Your task to perform on an android device: open a bookmark in the chrome app Image 0: 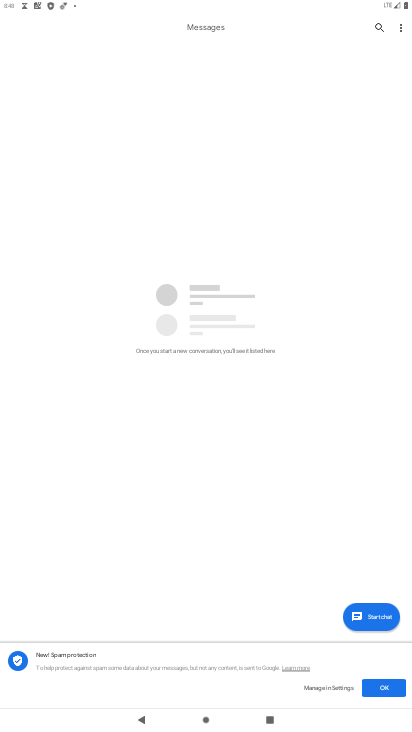
Step 0: press home button
Your task to perform on an android device: open a bookmark in the chrome app Image 1: 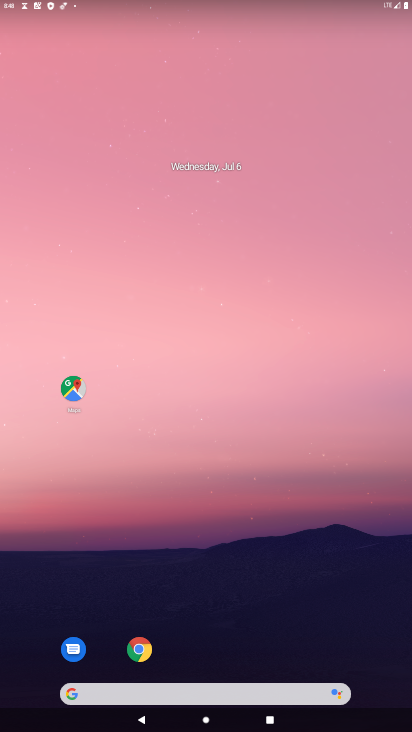
Step 1: drag from (216, 669) to (231, 67)
Your task to perform on an android device: open a bookmark in the chrome app Image 2: 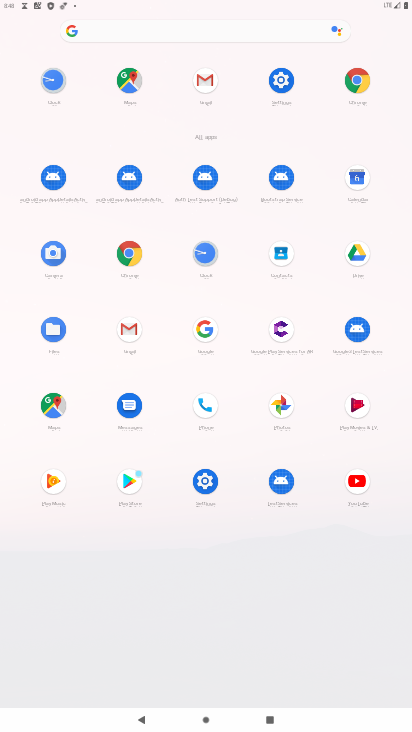
Step 2: click (346, 83)
Your task to perform on an android device: open a bookmark in the chrome app Image 3: 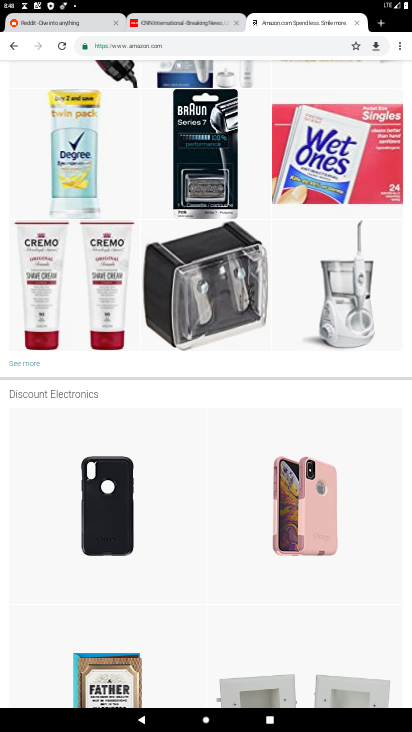
Step 3: click (357, 21)
Your task to perform on an android device: open a bookmark in the chrome app Image 4: 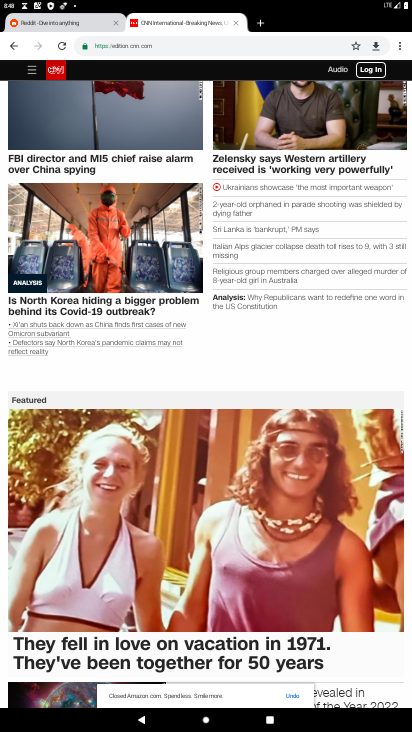
Step 4: click (234, 21)
Your task to perform on an android device: open a bookmark in the chrome app Image 5: 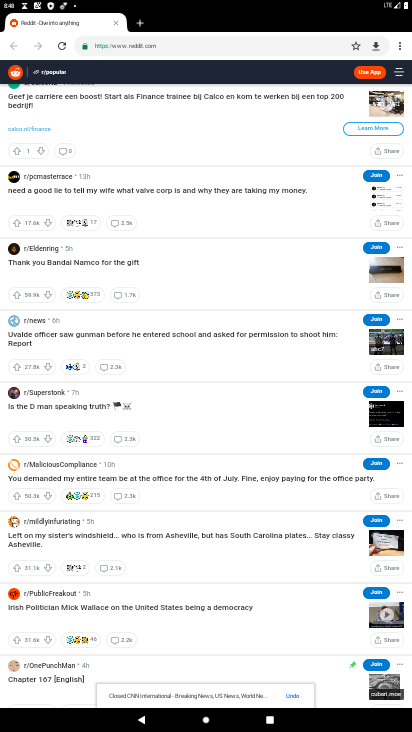
Step 5: click (141, 22)
Your task to perform on an android device: open a bookmark in the chrome app Image 6: 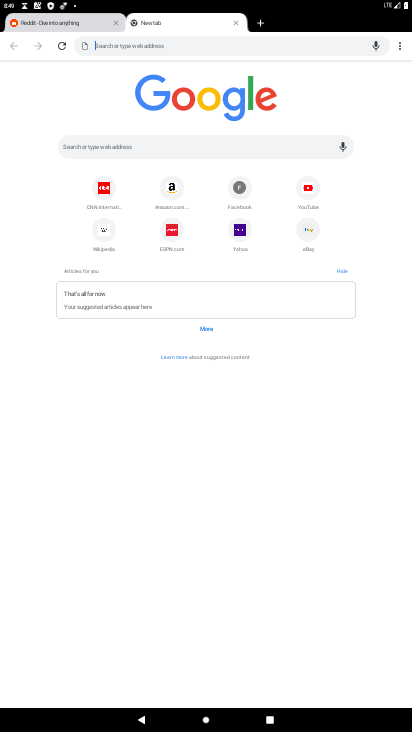
Step 6: click (402, 48)
Your task to perform on an android device: open a bookmark in the chrome app Image 7: 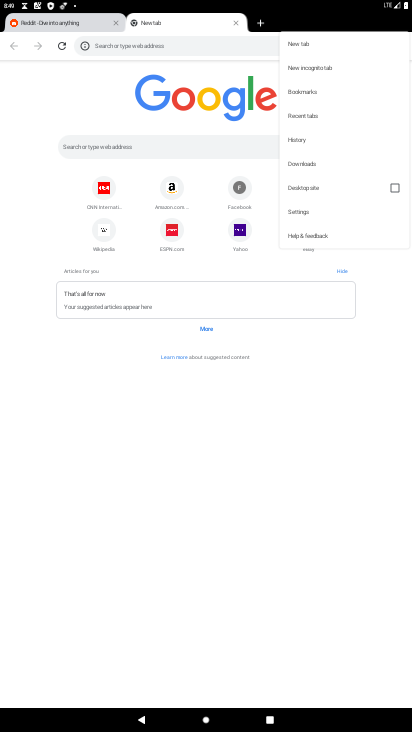
Step 7: click (323, 91)
Your task to perform on an android device: open a bookmark in the chrome app Image 8: 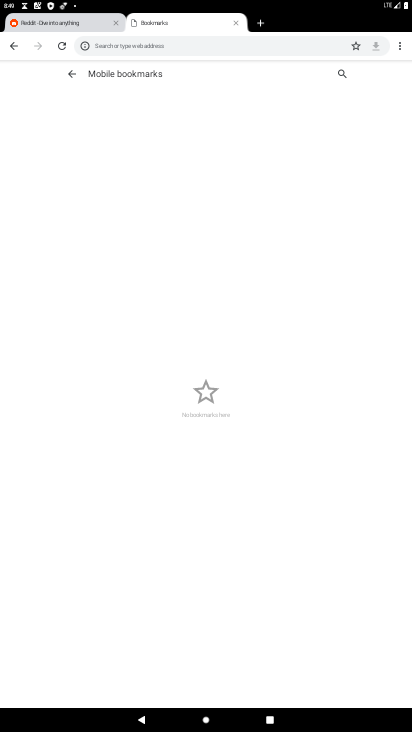
Step 8: click (162, 72)
Your task to perform on an android device: open a bookmark in the chrome app Image 9: 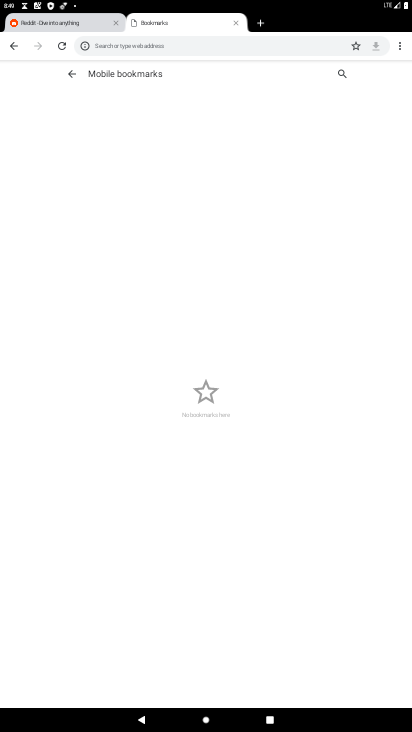
Step 9: task complete